Your task to perform on an android device: Open calendar and show me the fourth week of next month Image 0: 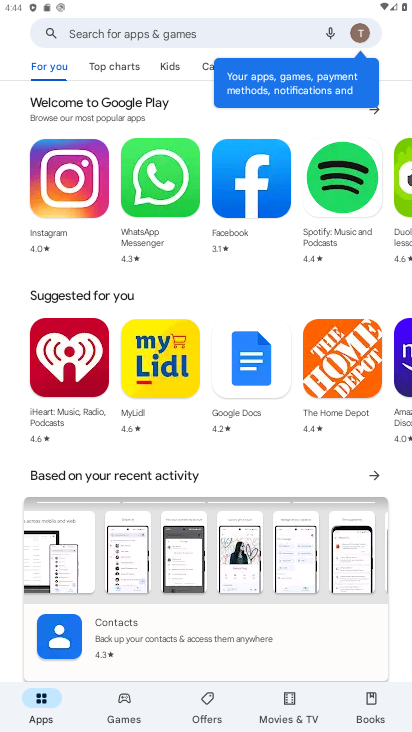
Step 0: press home button
Your task to perform on an android device: Open calendar and show me the fourth week of next month Image 1: 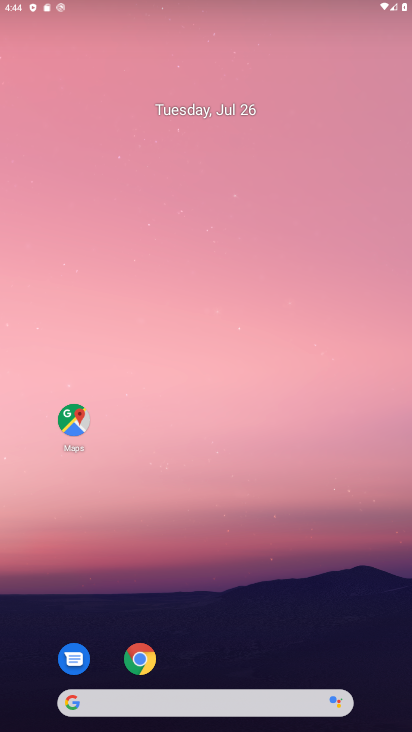
Step 1: drag from (284, 613) to (313, 149)
Your task to perform on an android device: Open calendar and show me the fourth week of next month Image 2: 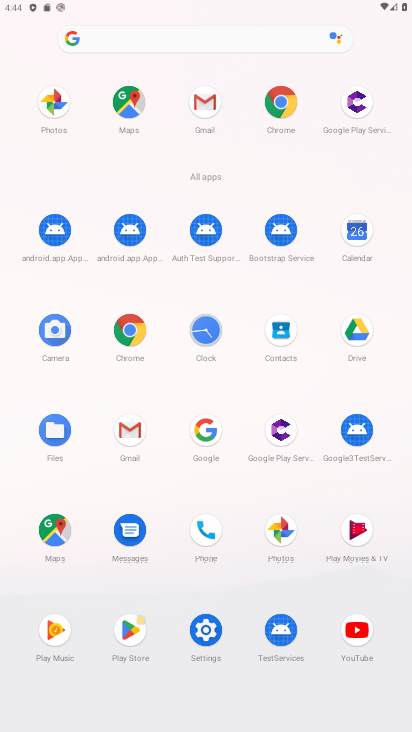
Step 2: click (359, 222)
Your task to perform on an android device: Open calendar and show me the fourth week of next month Image 3: 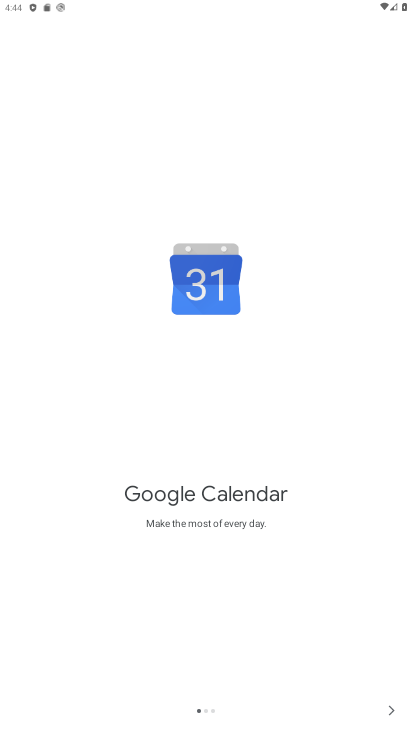
Step 3: click (397, 708)
Your task to perform on an android device: Open calendar and show me the fourth week of next month Image 4: 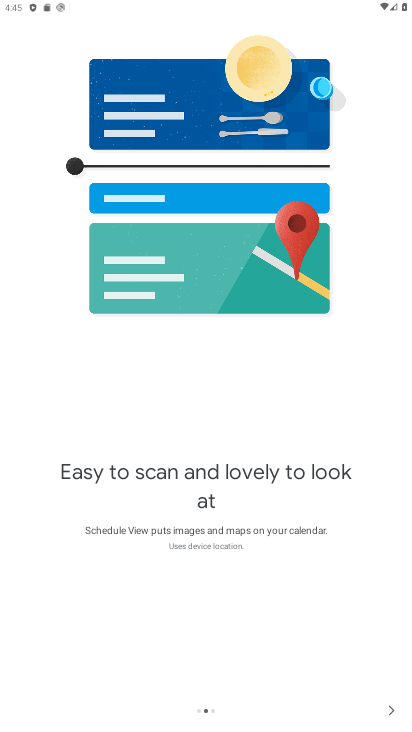
Step 4: click (397, 708)
Your task to perform on an android device: Open calendar and show me the fourth week of next month Image 5: 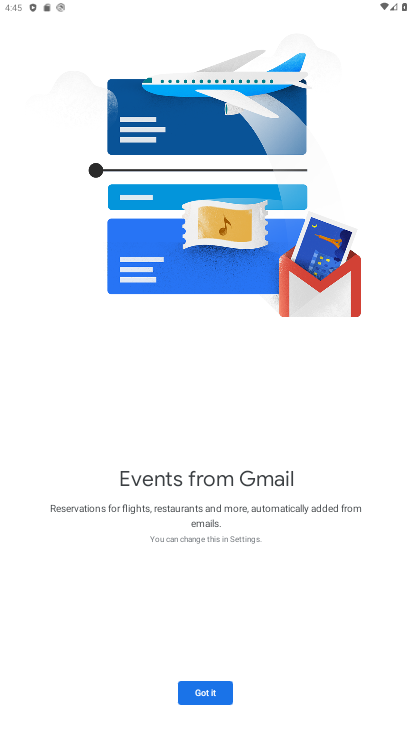
Step 5: click (222, 688)
Your task to perform on an android device: Open calendar and show me the fourth week of next month Image 6: 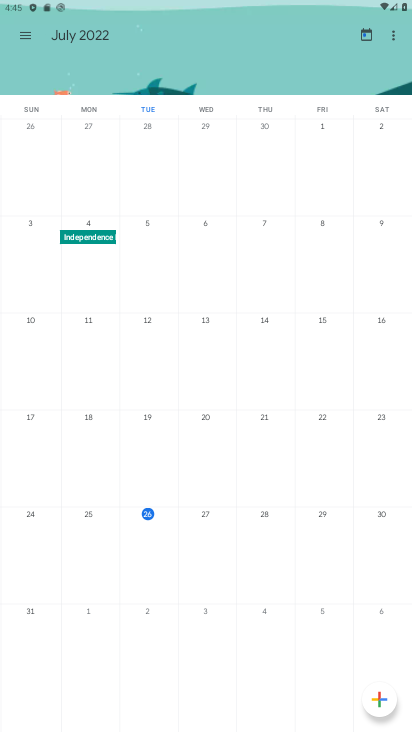
Step 6: click (89, 37)
Your task to perform on an android device: Open calendar and show me the fourth week of next month Image 7: 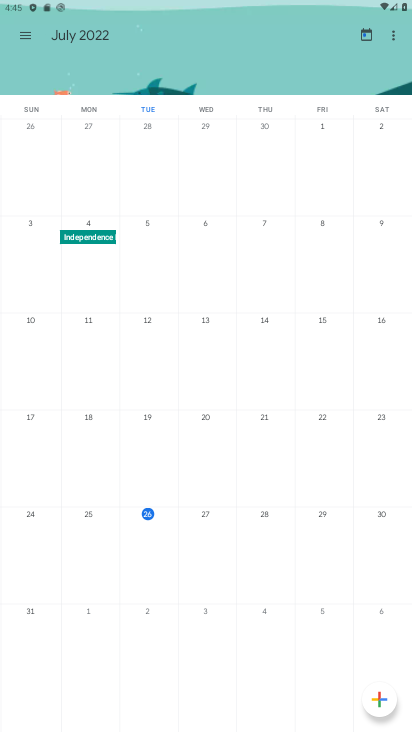
Step 7: drag from (380, 224) to (5, 215)
Your task to perform on an android device: Open calendar and show me the fourth week of next month Image 8: 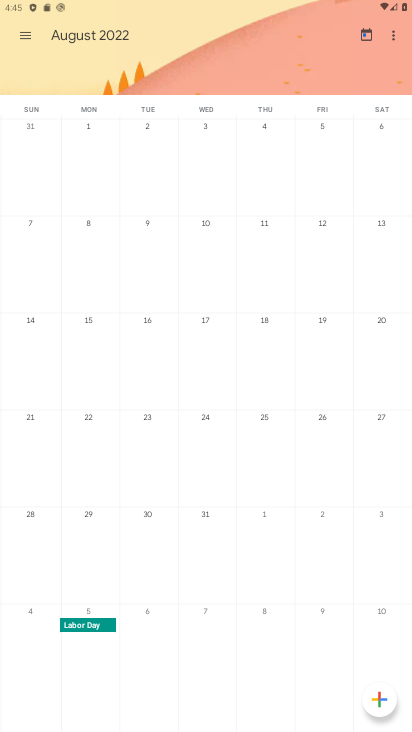
Step 8: click (209, 609)
Your task to perform on an android device: Open calendar and show me the fourth week of next month Image 9: 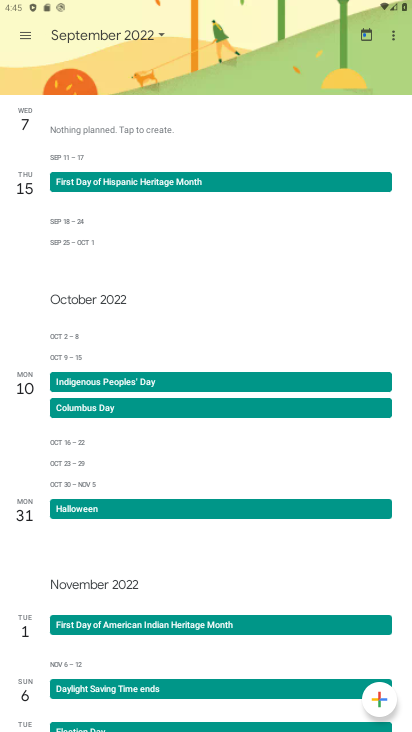
Step 9: task complete